Your task to perform on an android device: search for starred emails in the gmail app Image 0: 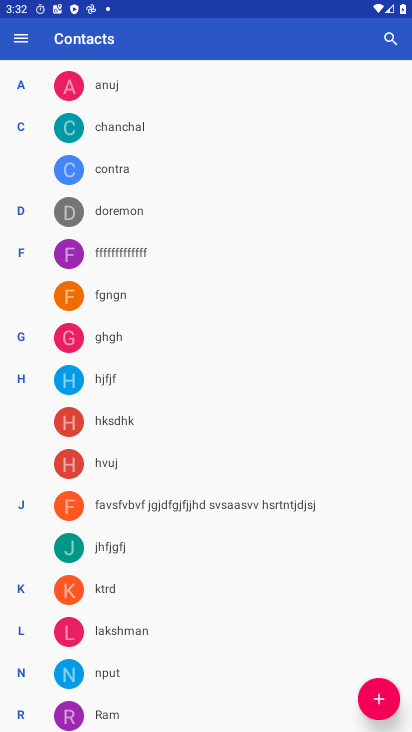
Step 0: press home button
Your task to perform on an android device: search for starred emails in the gmail app Image 1: 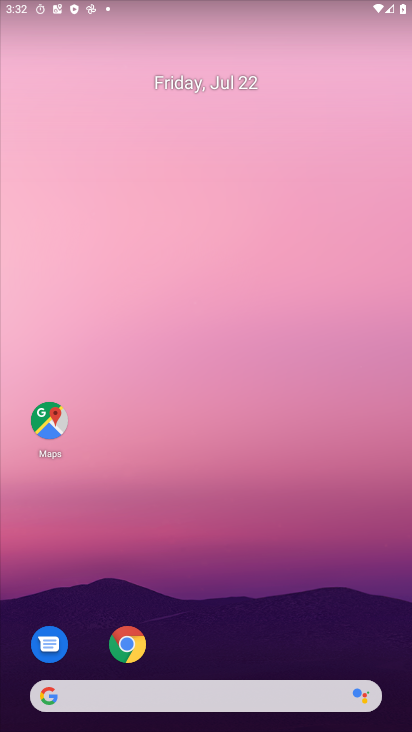
Step 1: drag from (226, 664) to (233, 333)
Your task to perform on an android device: search for starred emails in the gmail app Image 2: 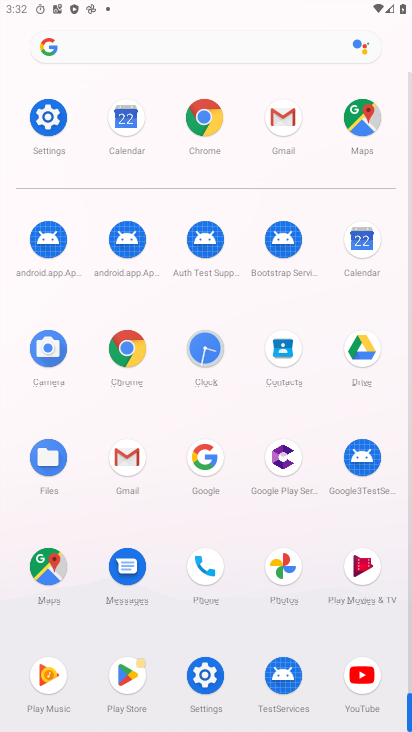
Step 2: click (137, 462)
Your task to perform on an android device: search for starred emails in the gmail app Image 3: 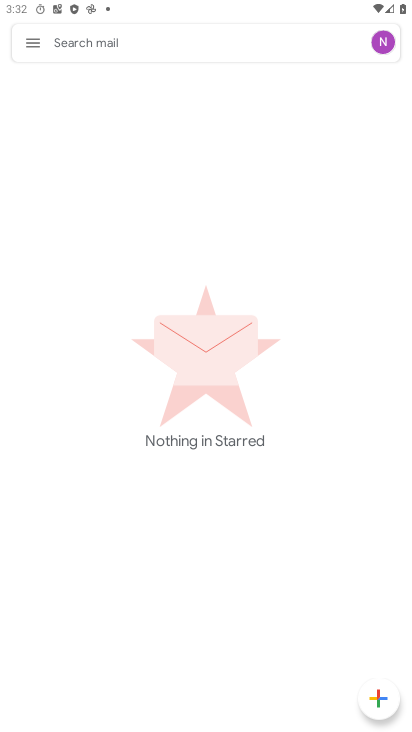
Step 3: click (36, 52)
Your task to perform on an android device: search for starred emails in the gmail app Image 4: 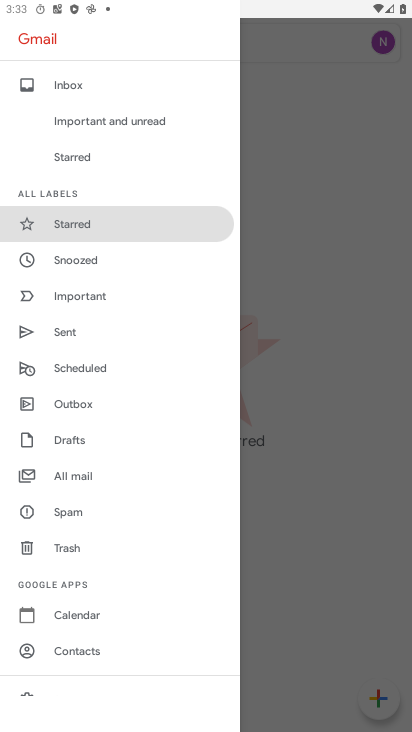
Step 4: click (90, 224)
Your task to perform on an android device: search for starred emails in the gmail app Image 5: 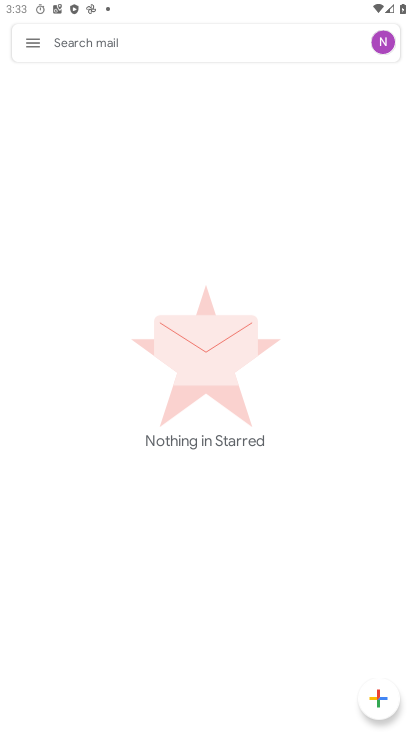
Step 5: task complete